Your task to perform on an android device: Open Reddit.com Image 0: 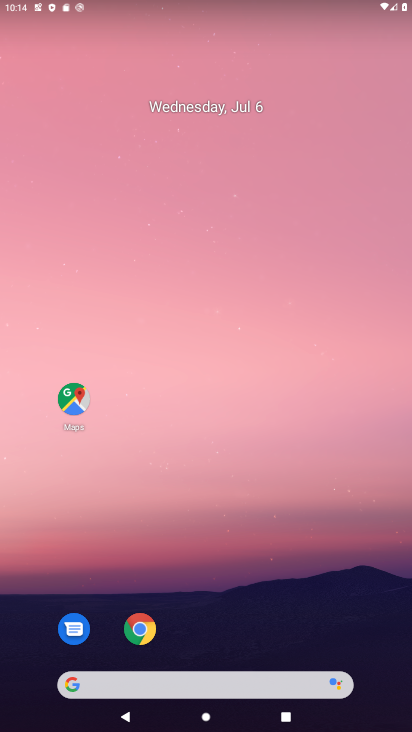
Step 0: drag from (222, 634) to (184, 126)
Your task to perform on an android device: Open Reddit.com Image 1: 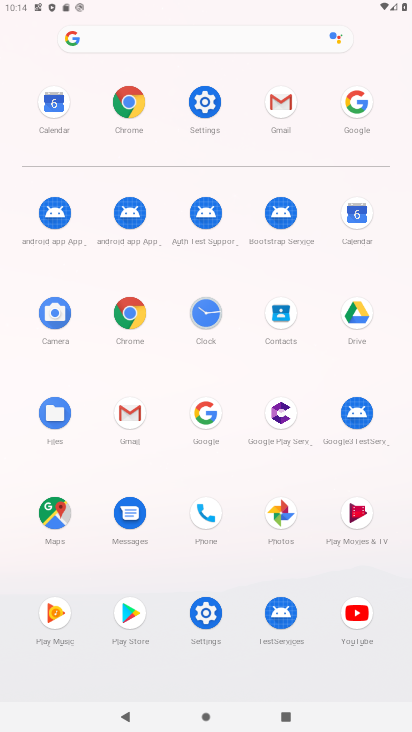
Step 1: click (212, 411)
Your task to perform on an android device: Open Reddit.com Image 2: 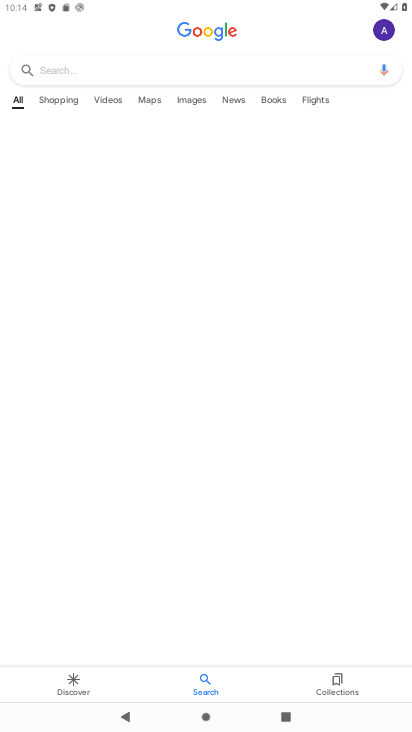
Step 2: click (164, 71)
Your task to perform on an android device: Open Reddit.com Image 3: 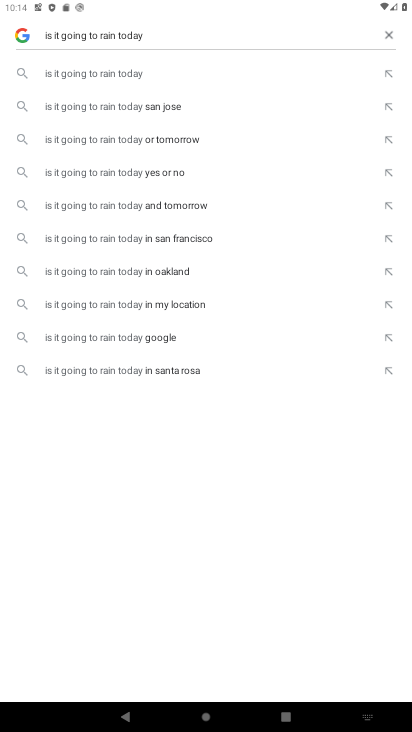
Step 3: click (301, 32)
Your task to perform on an android device: Open Reddit.com Image 4: 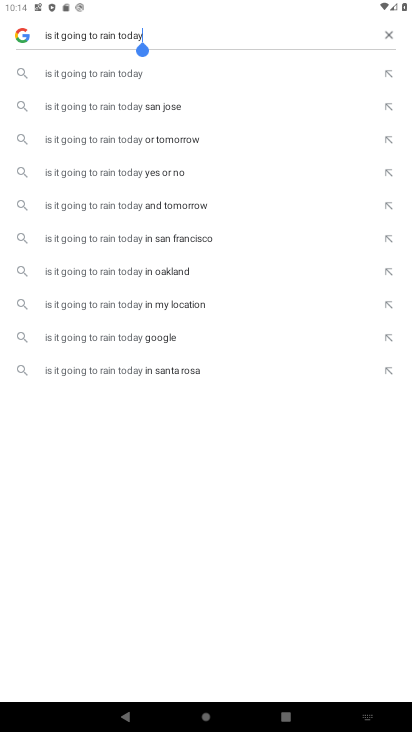
Step 4: click (384, 35)
Your task to perform on an android device: Open Reddit.com Image 5: 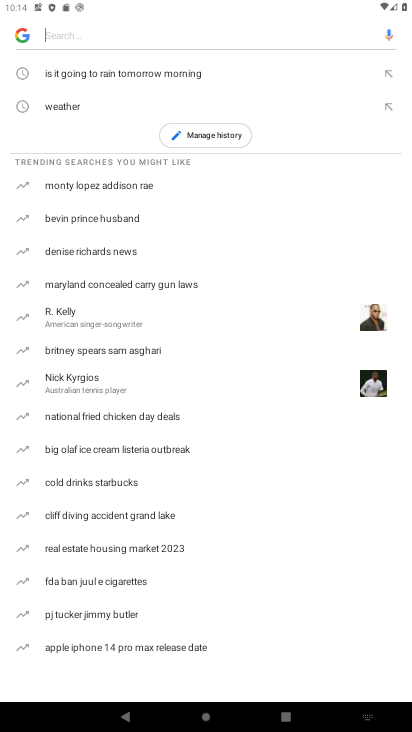
Step 5: type "Reddit.com"
Your task to perform on an android device: Open Reddit.com Image 6: 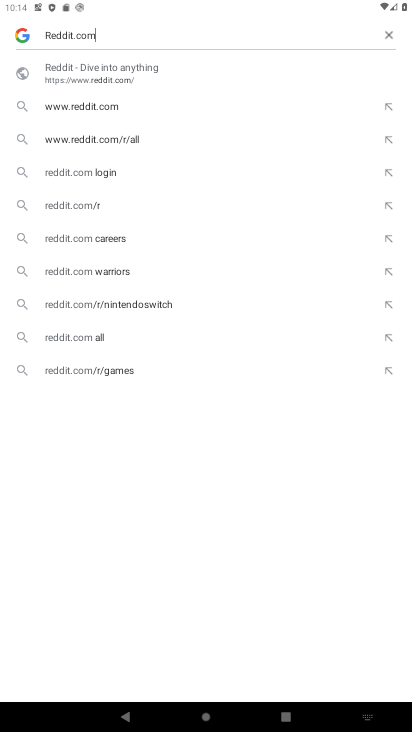
Step 6: click (85, 108)
Your task to perform on an android device: Open Reddit.com Image 7: 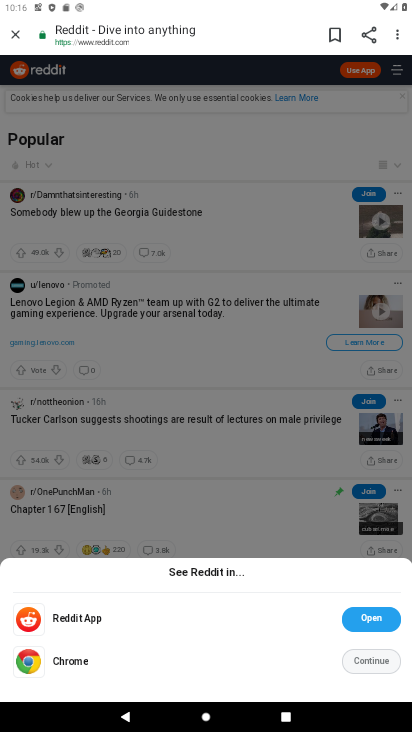
Step 7: task complete